Your task to perform on an android device: manage bookmarks in the chrome app Image 0: 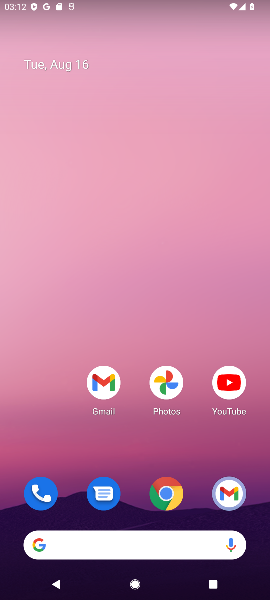
Step 0: press home button
Your task to perform on an android device: manage bookmarks in the chrome app Image 1: 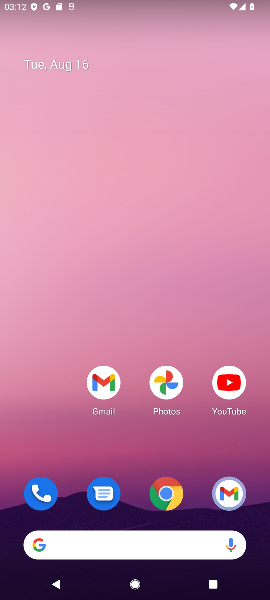
Step 1: drag from (67, 457) to (106, 86)
Your task to perform on an android device: manage bookmarks in the chrome app Image 2: 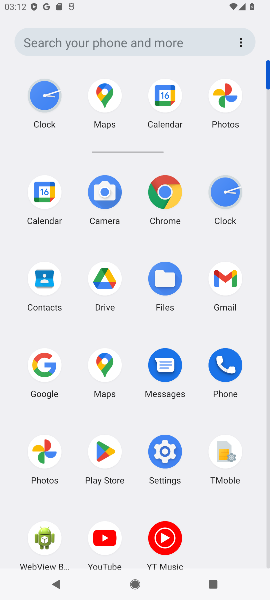
Step 2: click (168, 197)
Your task to perform on an android device: manage bookmarks in the chrome app Image 3: 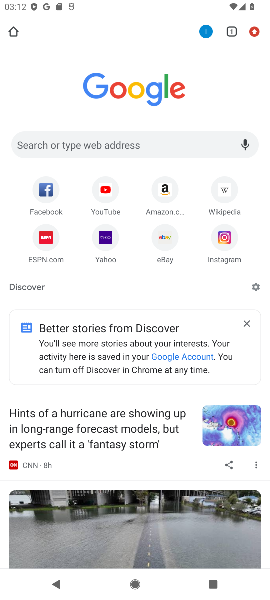
Step 3: click (253, 30)
Your task to perform on an android device: manage bookmarks in the chrome app Image 4: 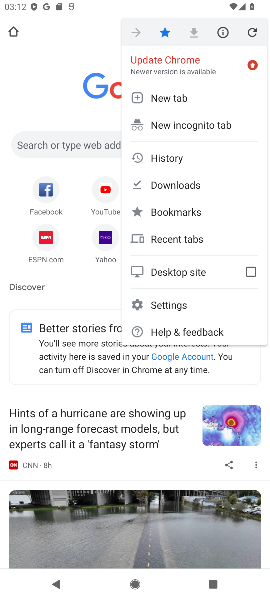
Step 4: click (190, 212)
Your task to perform on an android device: manage bookmarks in the chrome app Image 5: 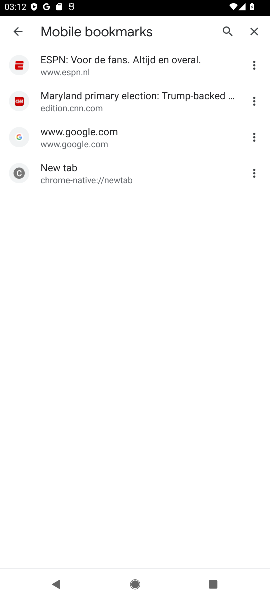
Step 5: click (256, 171)
Your task to perform on an android device: manage bookmarks in the chrome app Image 6: 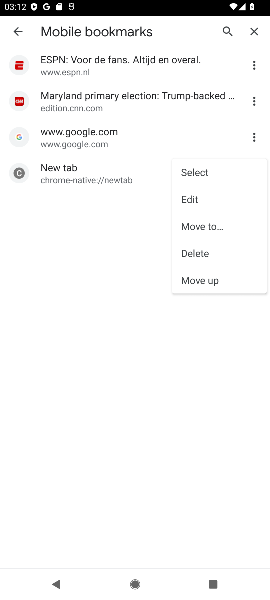
Step 6: click (201, 197)
Your task to perform on an android device: manage bookmarks in the chrome app Image 7: 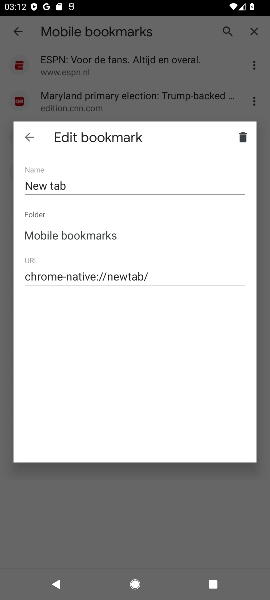
Step 7: click (111, 185)
Your task to perform on an android device: manage bookmarks in the chrome app Image 8: 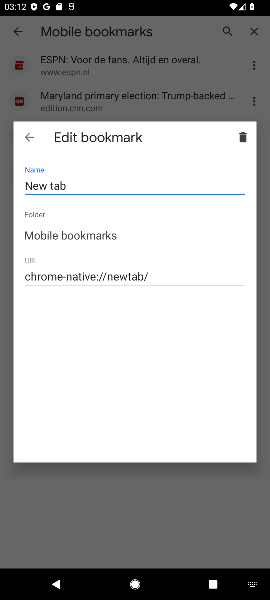
Step 8: type "b"
Your task to perform on an android device: manage bookmarks in the chrome app Image 9: 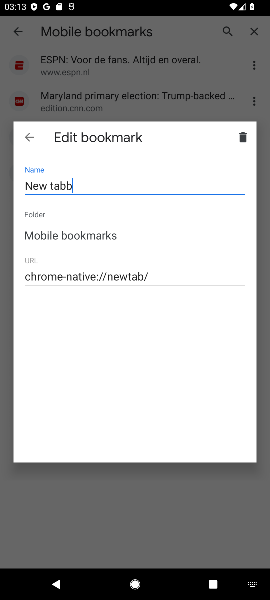
Step 9: click (28, 134)
Your task to perform on an android device: manage bookmarks in the chrome app Image 10: 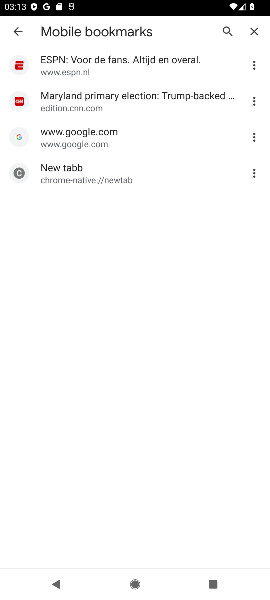
Step 10: task complete